Your task to perform on an android device: allow cookies in the chrome app Image 0: 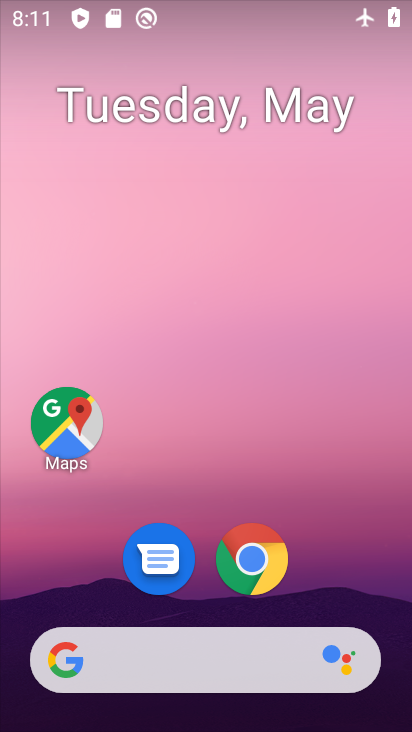
Step 0: click (233, 558)
Your task to perform on an android device: allow cookies in the chrome app Image 1: 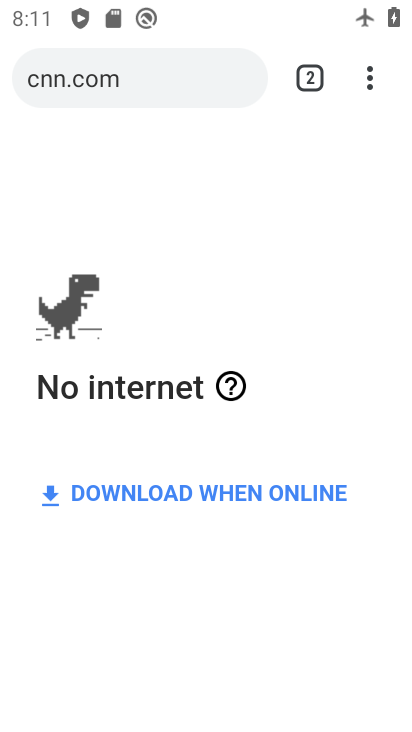
Step 1: drag from (366, 86) to (118, 621)
Your task to perform on an android device: allow cookies in the chrome app Image 2: 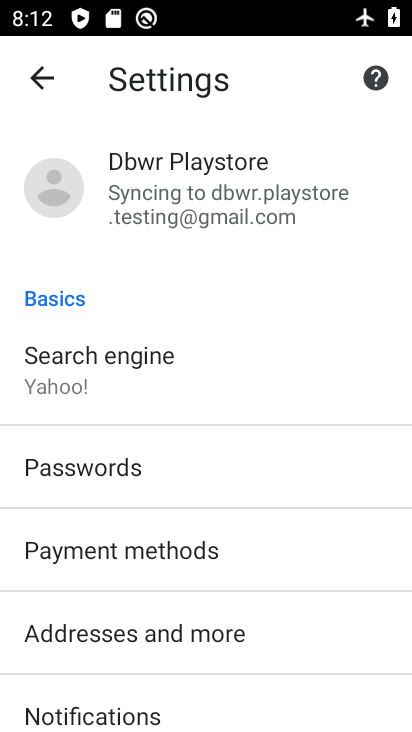
Step 2: drag from (197, 560) to (212, 293)
Your task to perform on an android device: allow cookies in the chrome app Image 3: 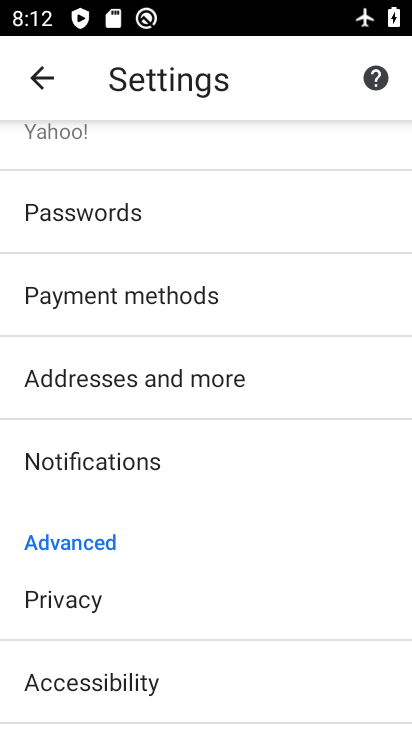
Step 3: drag from (135, 637) to (160, 408)
Your task to perform on an android device: allow cookies in the chrome app Image 4: 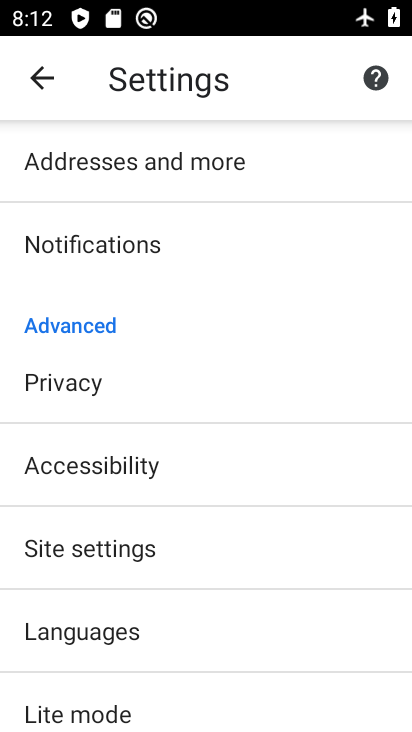
Step 4: click (111, 555)
Your task to perform on an android device: allow cookies in the chrome app Image 5: 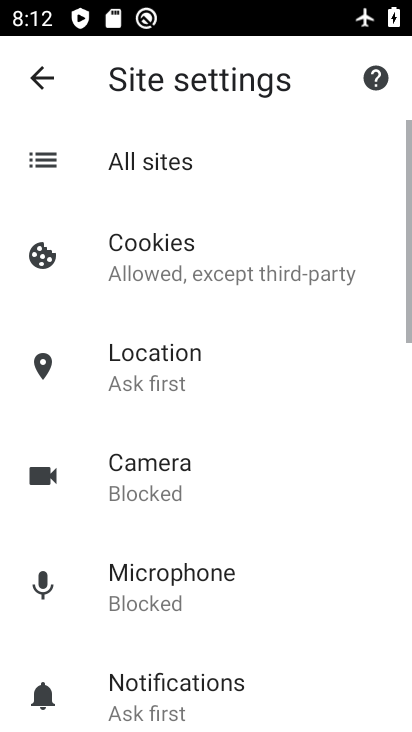
Step 5: click (149, 280)
Your task to perform on an android device: allow cookies in the chrome app Image 6: 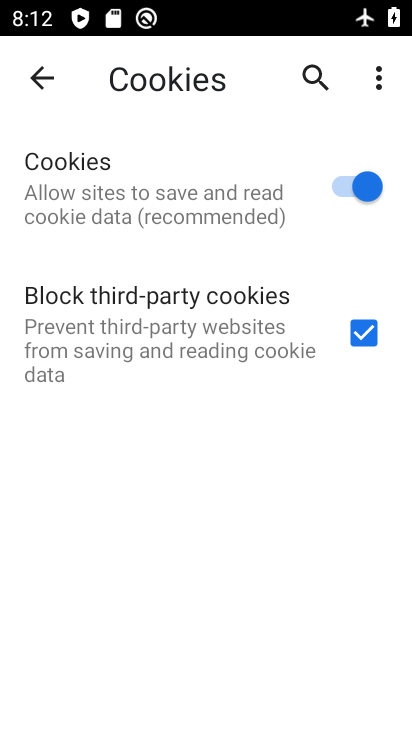
Step 6: task complete